Your task to perform on an android device: Go to sound settings Image 0: 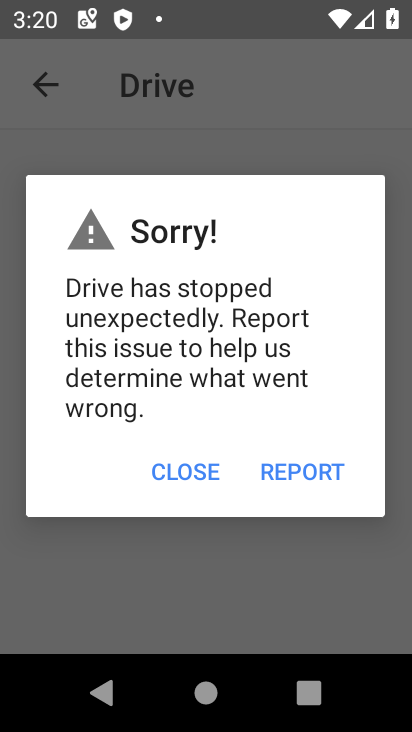
Step 0: press home button
Your task to perform on an android device: Go to sound settings Image 1: 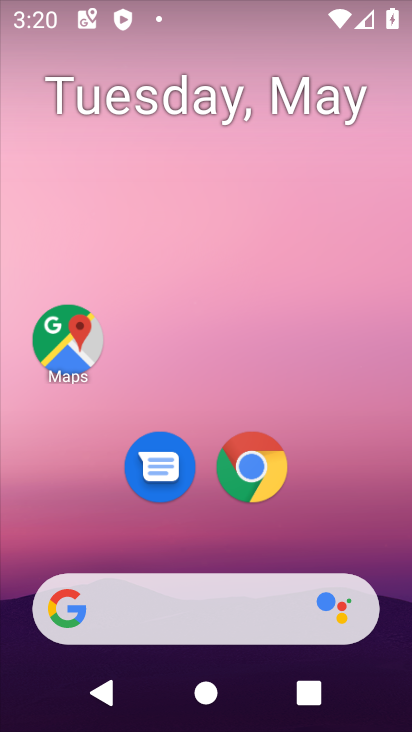
Step 1: drag from (343, 519) to (279, 28)
Your task to perform on an android device: Go to sound settings Image 2: 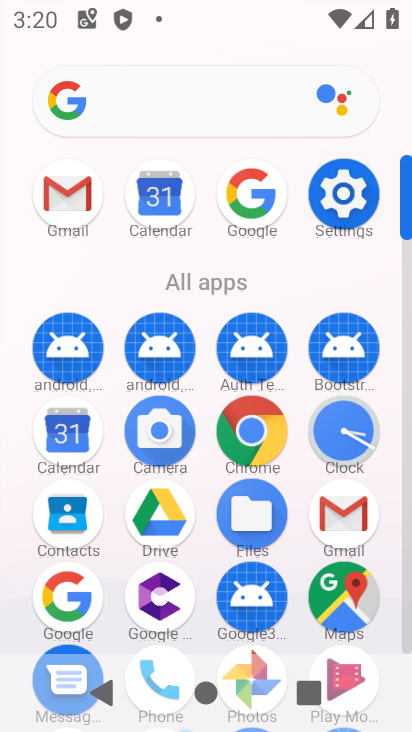
Step 2: click (348, 206)
Your task to perform on an android device: Go to sound settings Image 3: 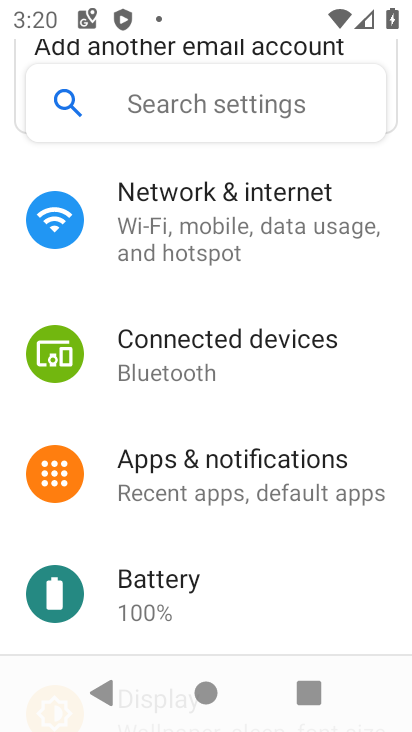
Step 3: drag from (302, 614) to (268, 172)
Your task to perform on an android device: Go to sound settings Image 4: 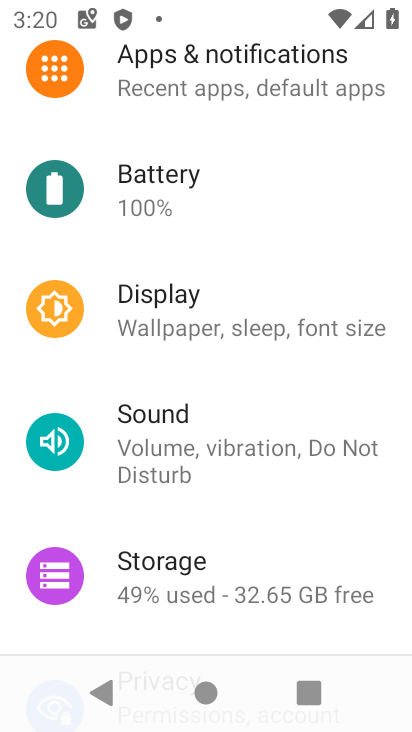
Step 4: click (161, 438)
Your task to perform on an android device: Go to sound settings Image 5: 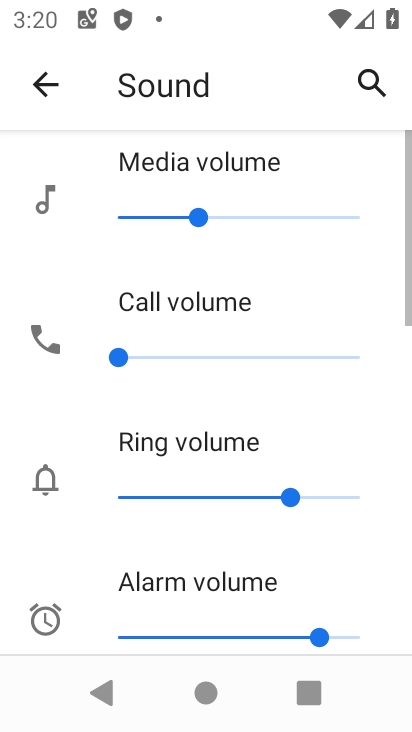
Step 5: task complete